Your task to perform on an android device: Toggle the flashlight Image 0: 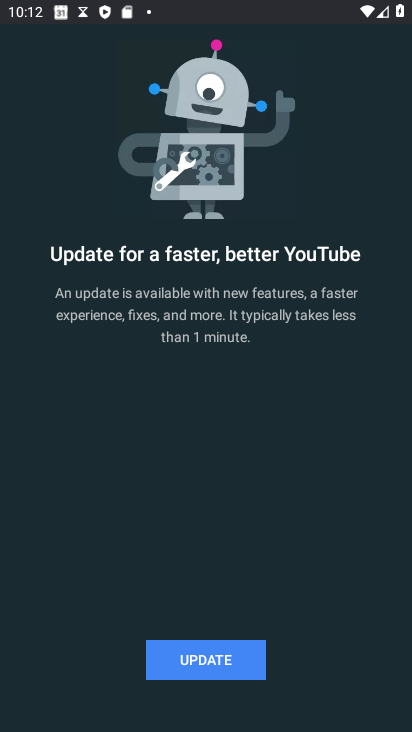
Step 0: press home button
Your task to perform on an android device: Toggle the flashlight Image 1: 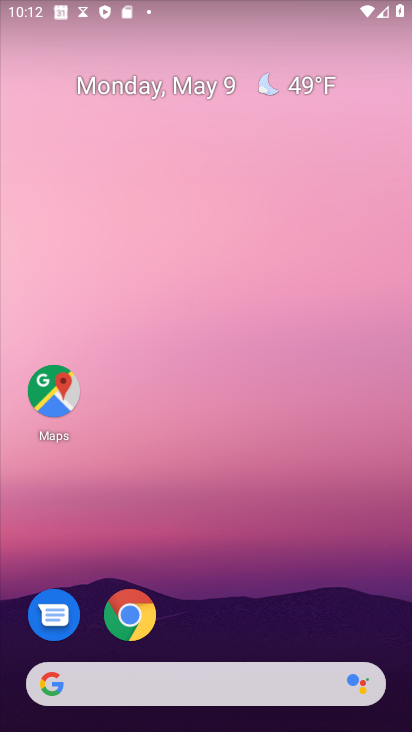
Step 1: drag from (210, 597) to (314, 121)
Your task to perform on an android device: Toggle the flashlight Image 2: 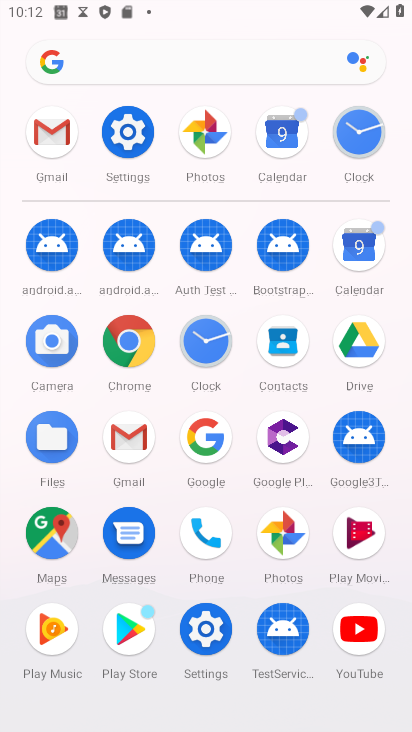
Step 2: click (132, 122)
Your task to perform on an android device: Toggle the flashlight Image 3: 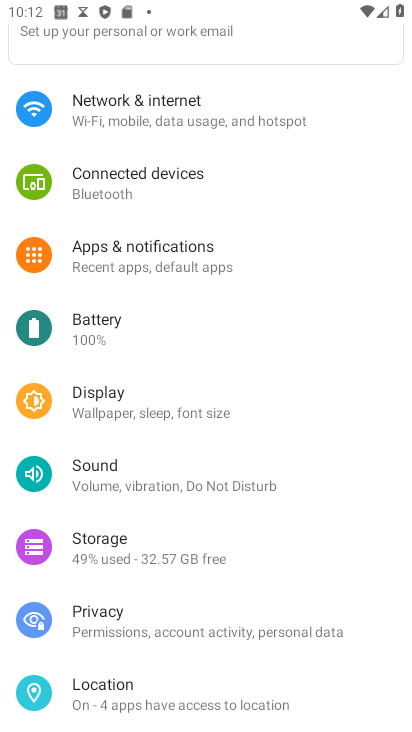
Step 3: drag from (216, 165) to (229, 377)
Your task to perform on an android device: Toggle the flashlight Image 4: 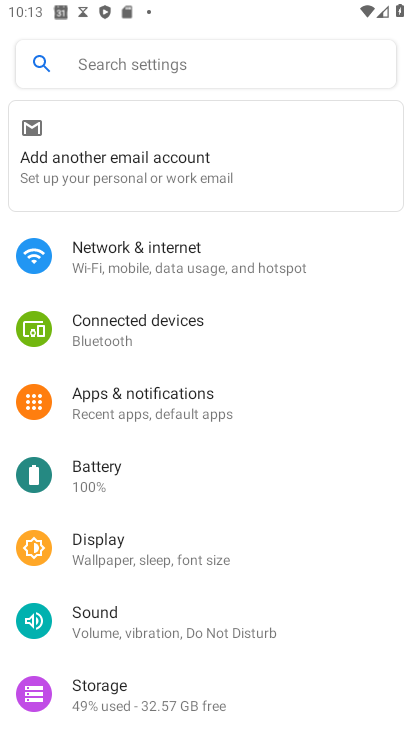
Step 4: click (188, 55)
Your task to perform on an android device: Toggle the flashlight Image 5: 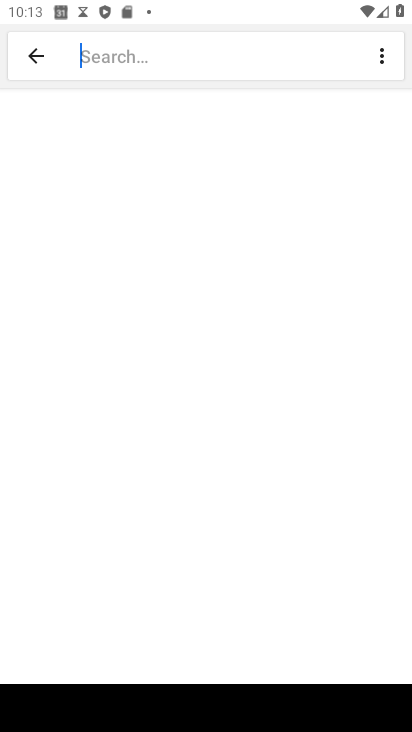
Step 5: type ""
Your task to perform on an android device: Toggle the flashlight Image 6: 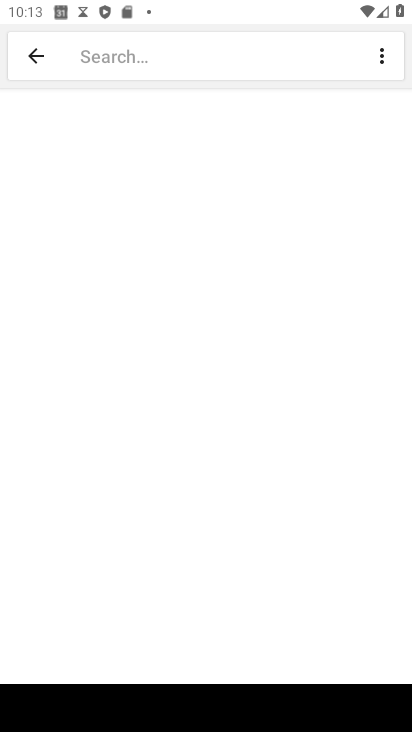
Step 6: type "flashlight"
Your task to perform on an android device: Toggle the flashlight Image 7: 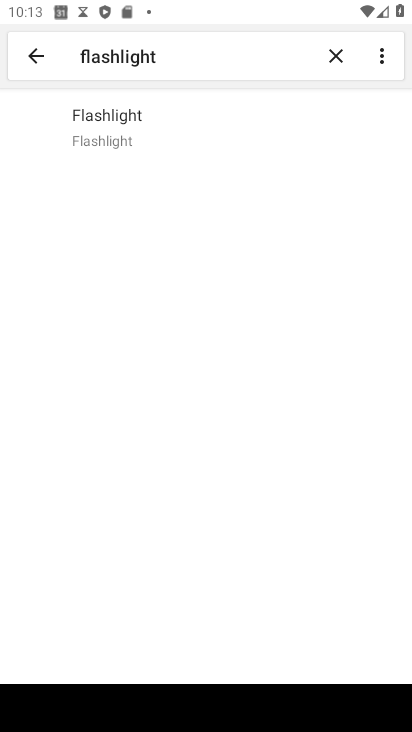
Step 7: click (125, 134)
Your task to perform on an android device: Toggle the flashlight Image 8: 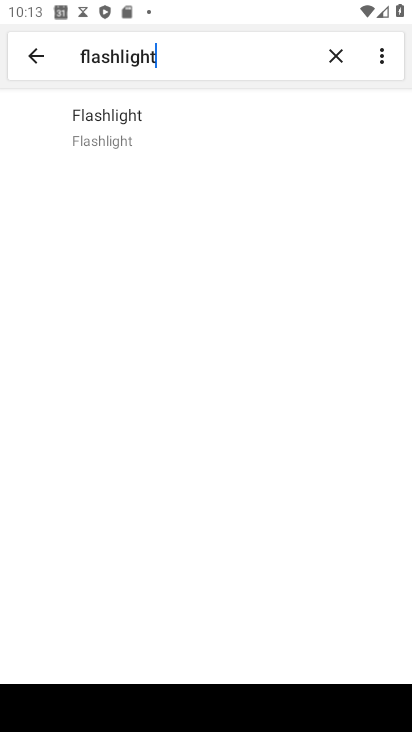
Step 8: click (110, 142)
Your task to perform on an android device: Toggle the flashlight Image 9: 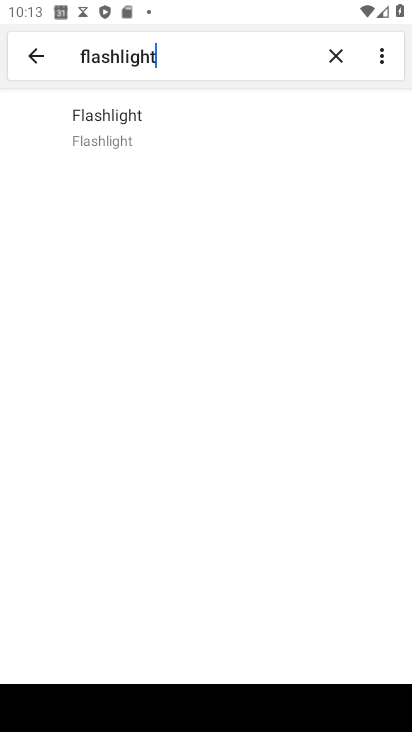
Step 9: task complete